Your task to perform on an android device: Go to network settings Image 0: 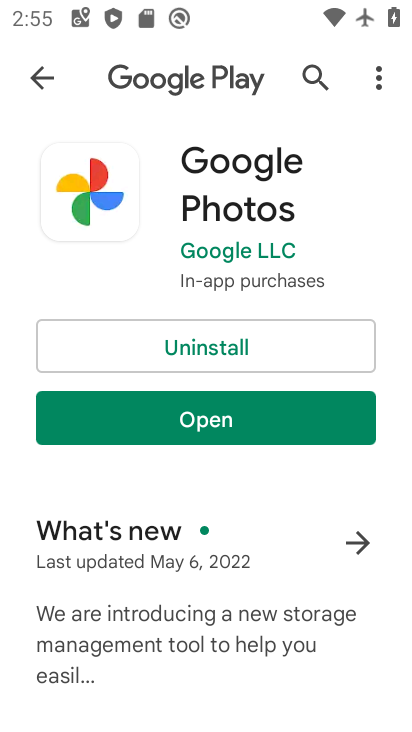
Step 0: press home button
Your task to perform on an android device: Go to network settings Image 1: 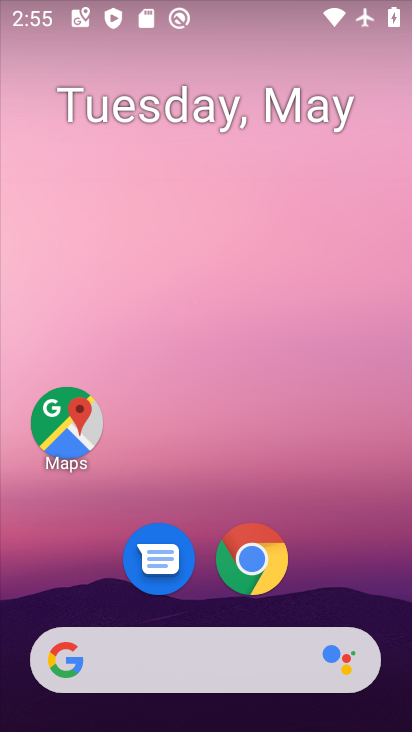
Step 1: drag from (149, 646) to (290, 164)
Your task to perform on an android device: Go to network settings Image 2: 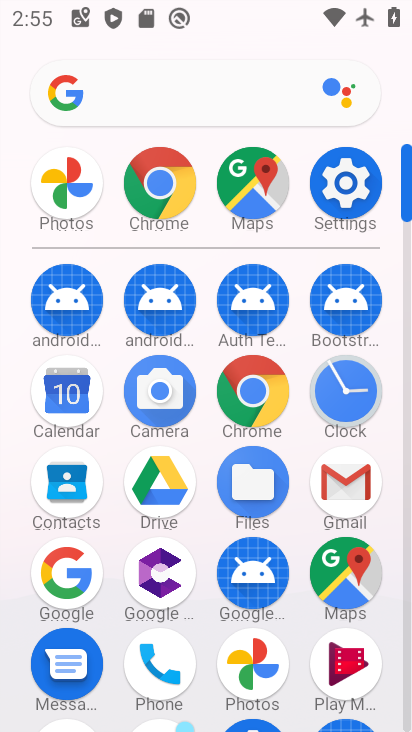
Step 2: click (346, 189)
Your task to perform on an android device: Go to network settings Image 3: 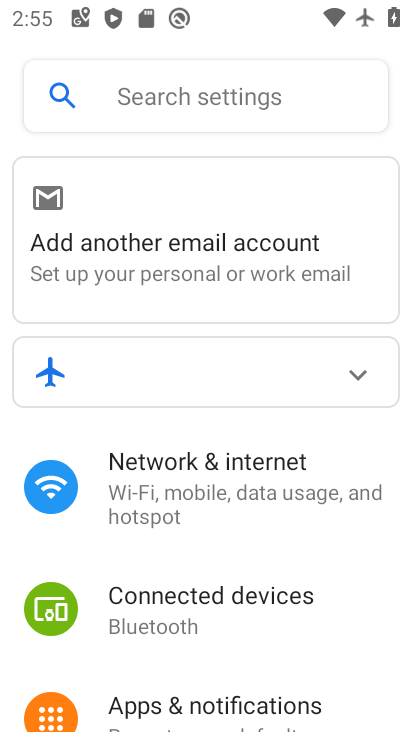
Step 3: click (202, 466)
Your task to perform on an android device: Go to network settings Image 4: 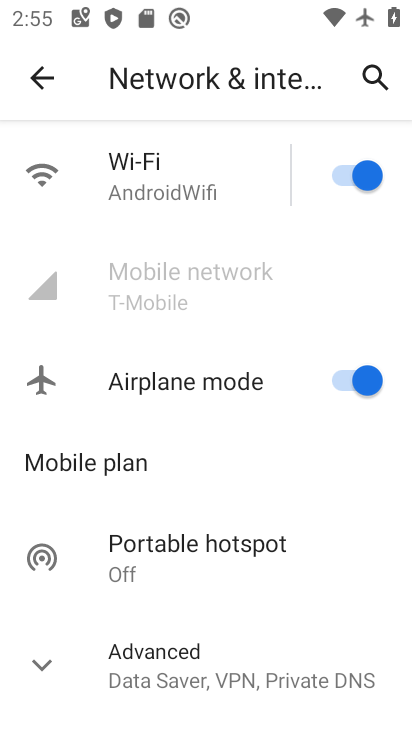
Step 4: drag from (195, 636) to (304, 330)
Your task to perform on an android device: Go to network settings Image 5: 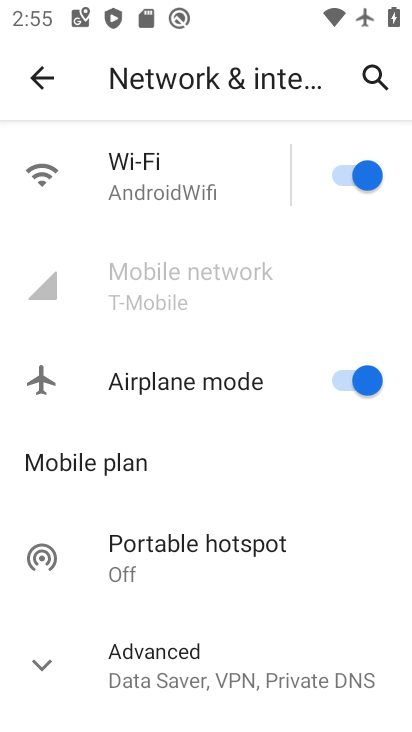
Step 5: click (108, 646)
Your task to perform on an android device: Go to network settings Image 6: 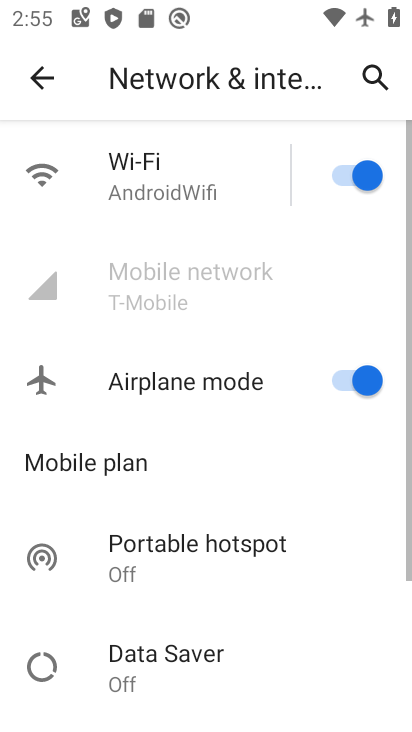
Step 6: task complete